Your task to perform on an android device: change the clock style Image 0: 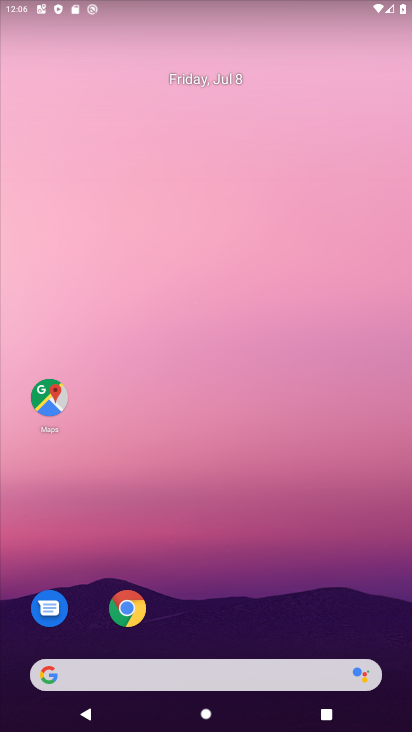
Step 0: click (300, 28)
Your task to perform on an android device: change the clock style Image 1: 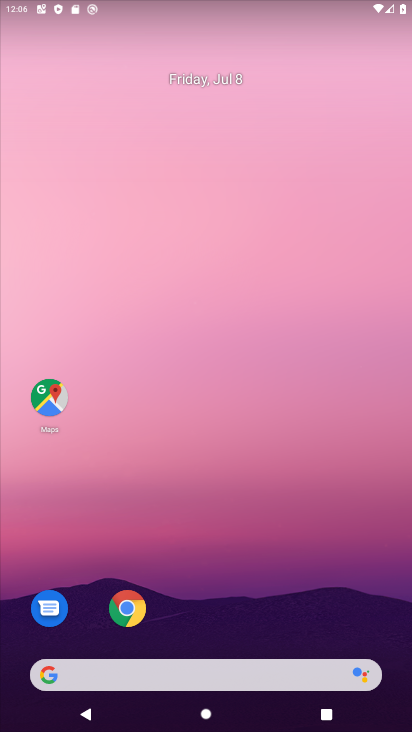
Step 1: drag from (50, 711) to (249, 38)
Your task to perform on an android device: change the clock style Image 2: 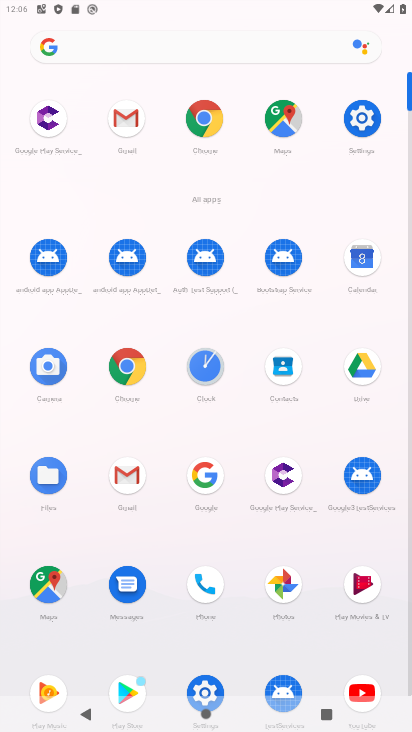
Step 2: click (211, 372)
Your task to perform on an android device: change the clock style Image 3: 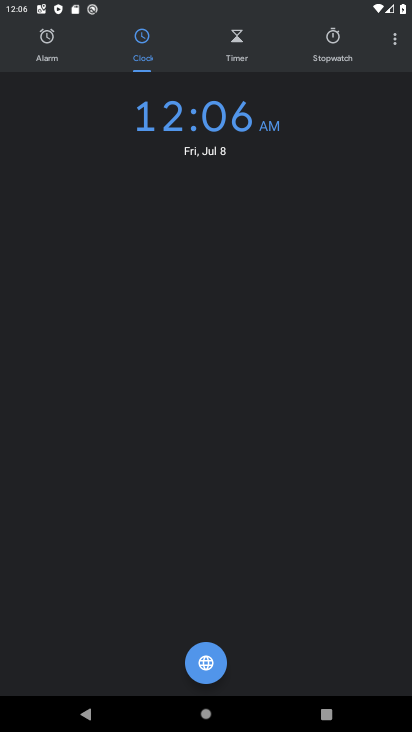
Step 3: click (142, 57)
Your task to perform on an android device: change the clock style Image 4: 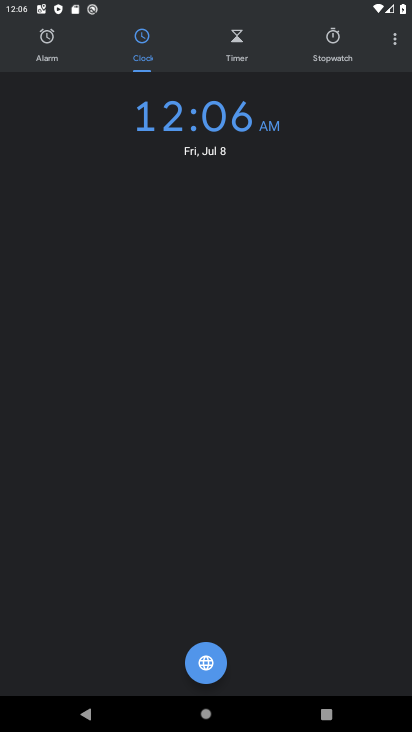
Step 4: click (233, 127)
Your task to perform on an android device: change the clock style Image 5: 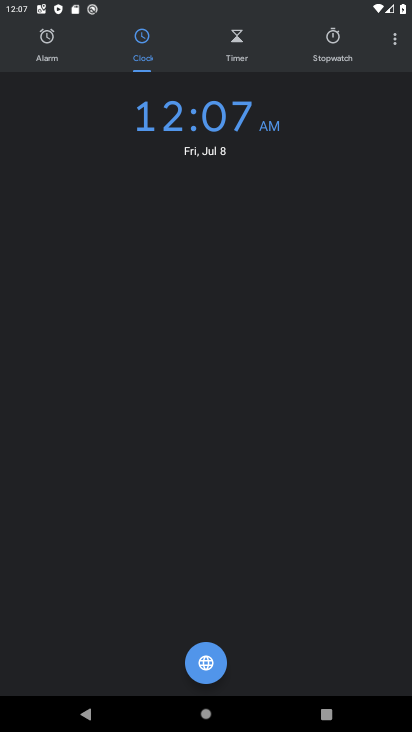
Step 5: click (396, 42)
Your task to perform on an android device: change the clock style Image 6: 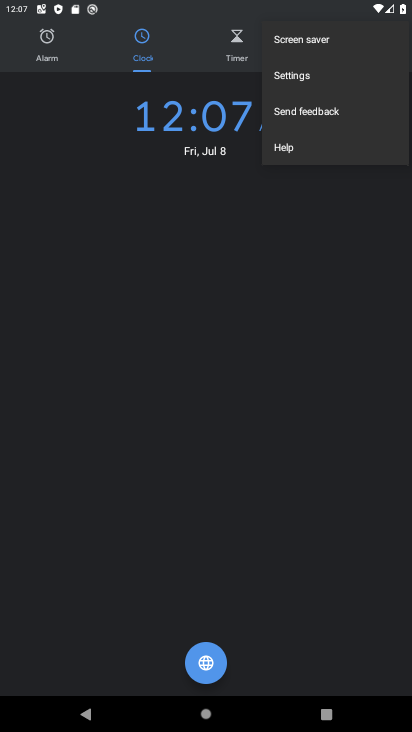
Step 6: click (298, 77)
Your task to perform on an android device: change the clock style Image 7: 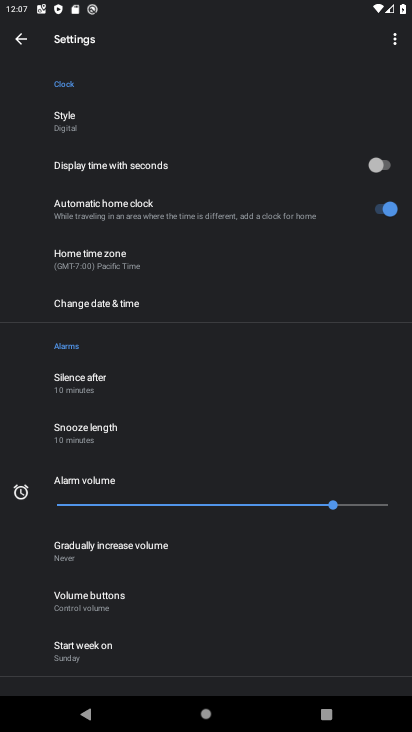
Step 7: click (104, 116)
Your task to perform on an android device: change the clock style Image 8: 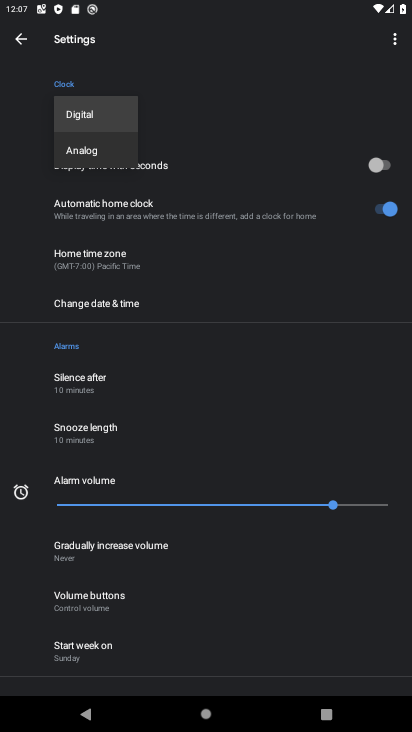
Step 8: click (97, 146)
Your task to perform on an android device: change the clock style Image 9: 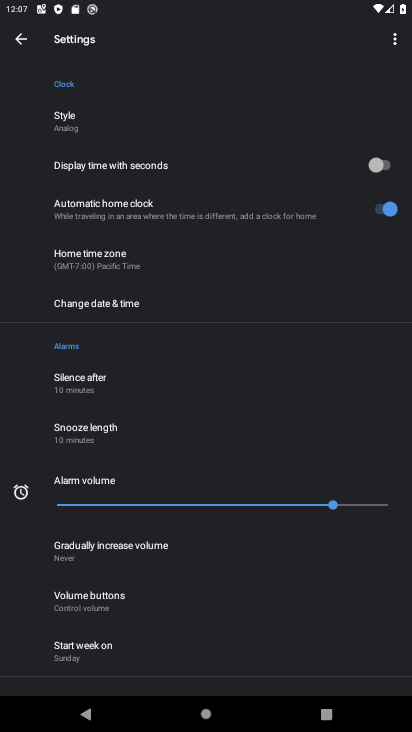
Step 9: task complete